Your task to perform on an android device: turn on javascript in the chrome app Image 0: 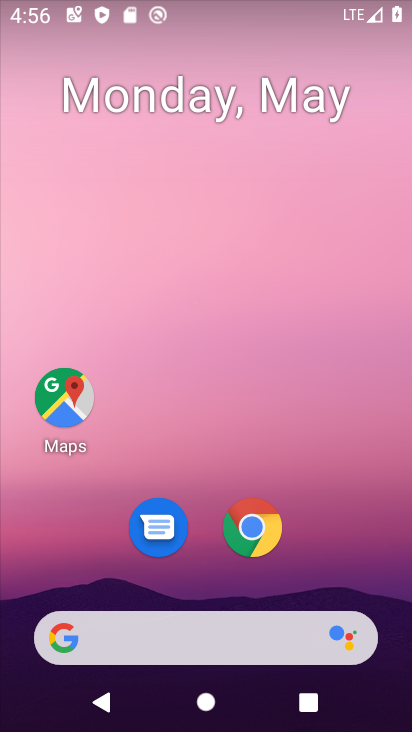
Step 0: click (253, 528)
Your task to perform on an android device: turn on javascript in the chrome app Image 1: 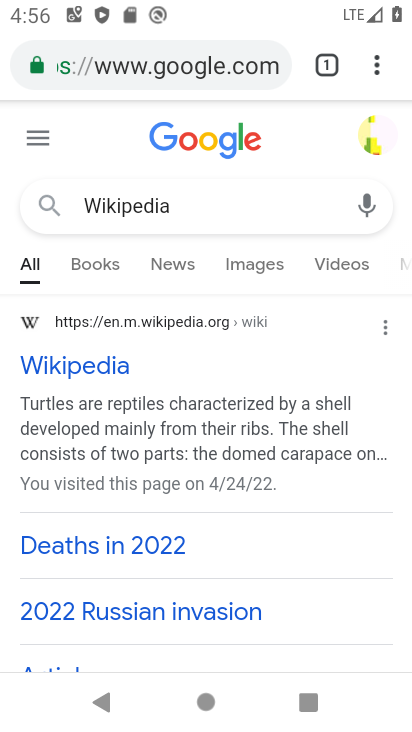
Step 1: click (375, 55)
Your task to perform on an android device: turn on javascript in the chrome app Image 2: 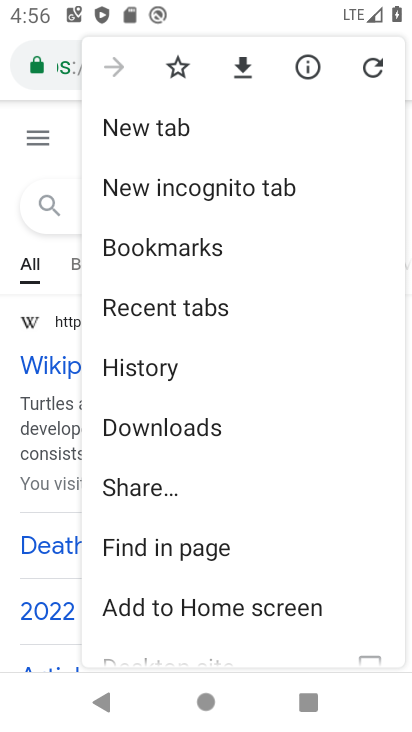
Step 2: drag from (334, 568) to (288, 236)
Your task to perform on an android device: turn on javascript in the chrome app Image 3: 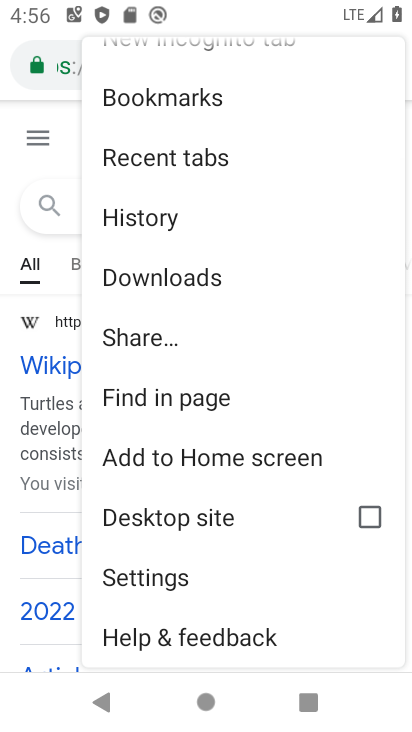
Step 3: drag from (301, 631) to (301, 346)
Your task to perform on an android device: turn on javascript in the chrome app Image 4: 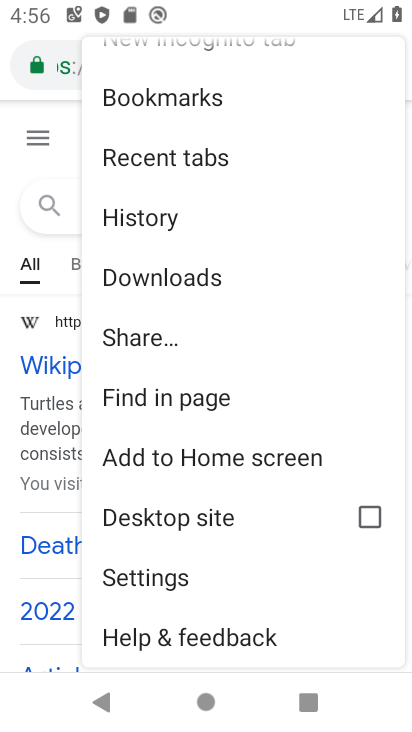
Step 4: click (127, 558)
Your task to perform on an android device: turn on javascript in the chrome app Image 5: 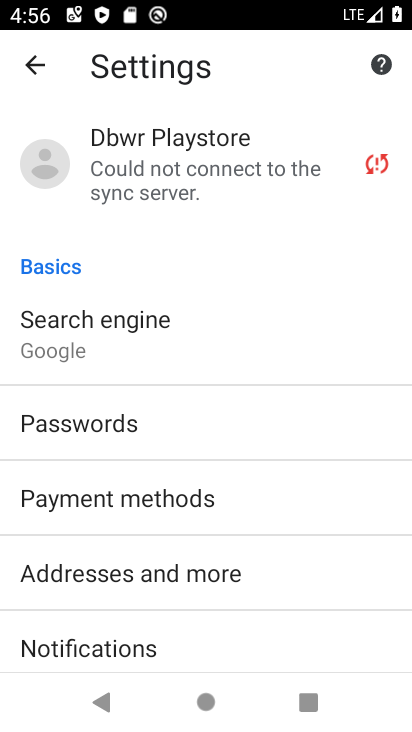
Step 5: drag from (313, 636) to (271, 360)
Your task to perform on an android device: turn on javascript in the chrome app Image 6: 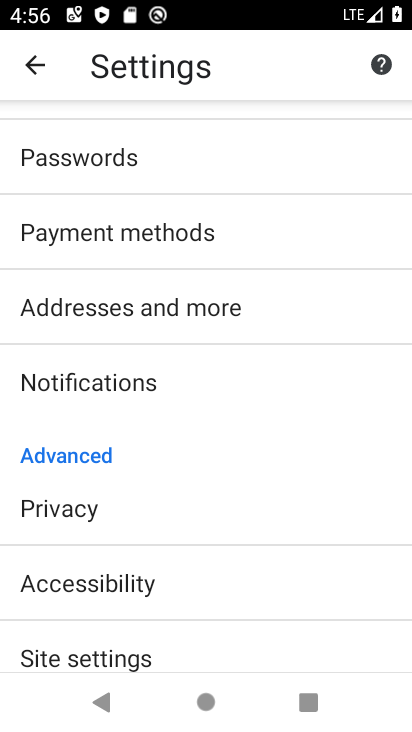
Step 6: click (90, 660)
Your task to perform on an android device: turn on javascript in the chrome app Image 7: 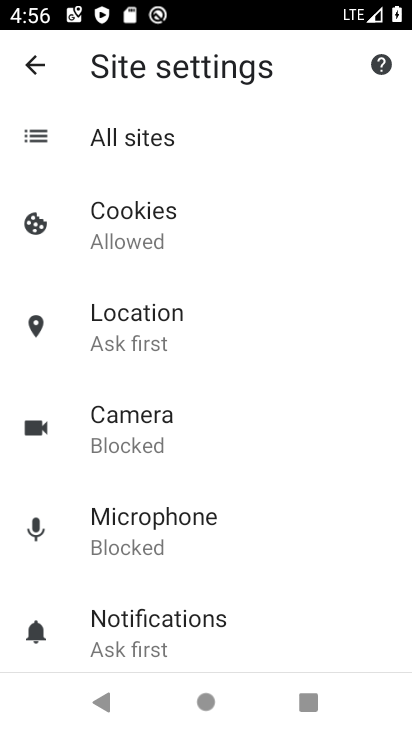
Step 7: drag from (287, 603) to (295, 319)
Your task to perform on an android device: turn on javascript in the chrome app Image 8: 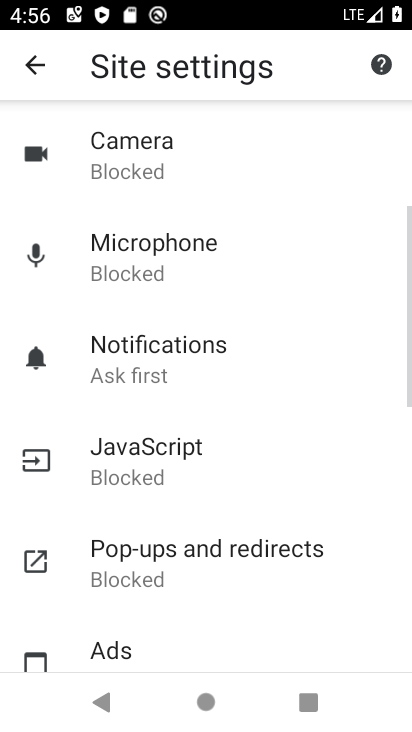
Step 8: click (108, 461)
Your task to perform on an android device: turn on javascript in the chrome app Image 9: 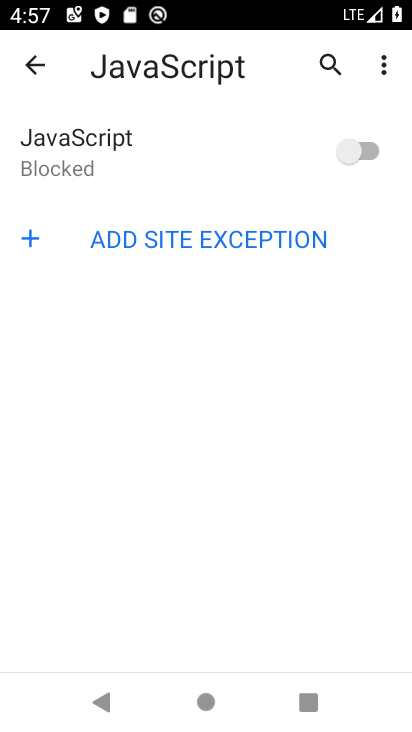
Step 9: click (363, 151)
Your task to perform on an android device: turn on javascript in the chrome app Image 10: 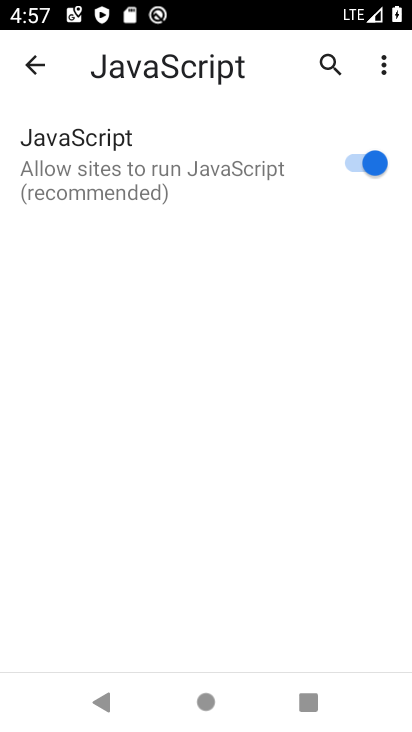
Step 10: task complete